Your task to perform on an android device: What's on my calendar tomorrow? Image 0: 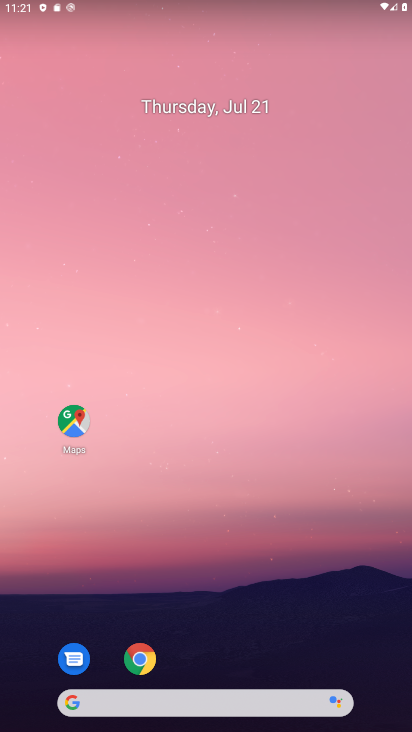
Step 0: drag from (203, 680) to (234, 132)
Your task to perform on an android device: What's on my calendar tomorrow? Image 1: 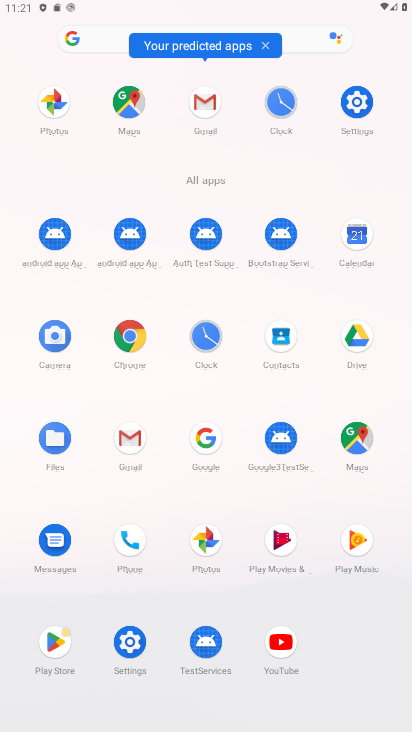
Step 1: task complete